Your task to perform on an android device: Open wifi settings Image 0: 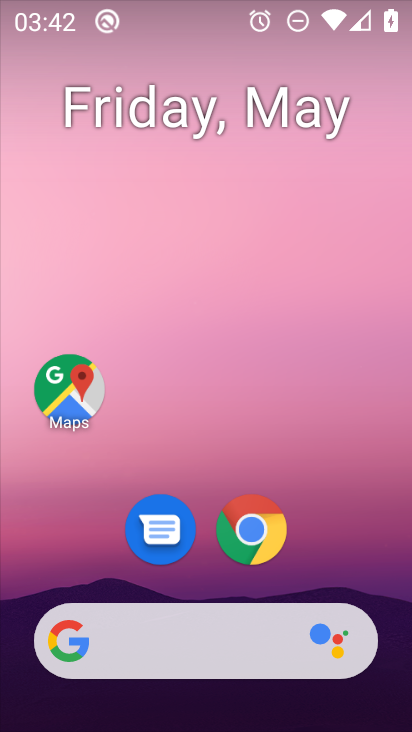
Step 0: click (376, 274)
Your task to perform on an android device: Open wifi settings Image 1: 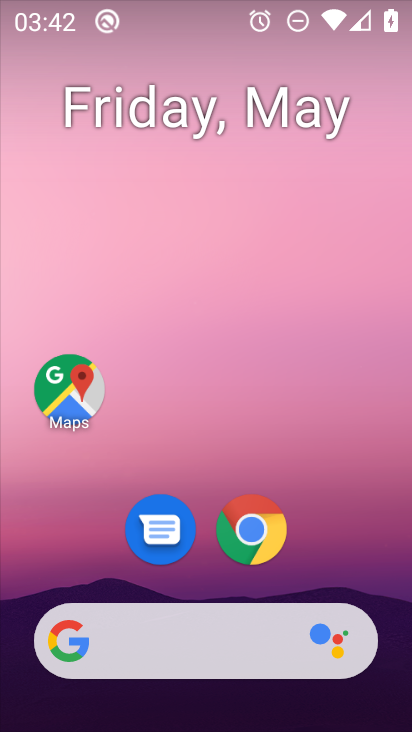
Step 1: drag from (389, 613) to (344, 276)
Your task to perform on an android device: Open wifi settings Image 2: 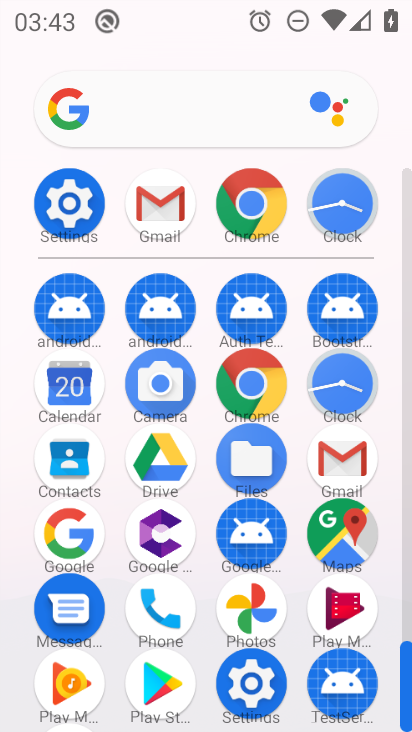
Step 2: click (77, 199)
Your task to perform on an android device: Open wifi settings Image 3: 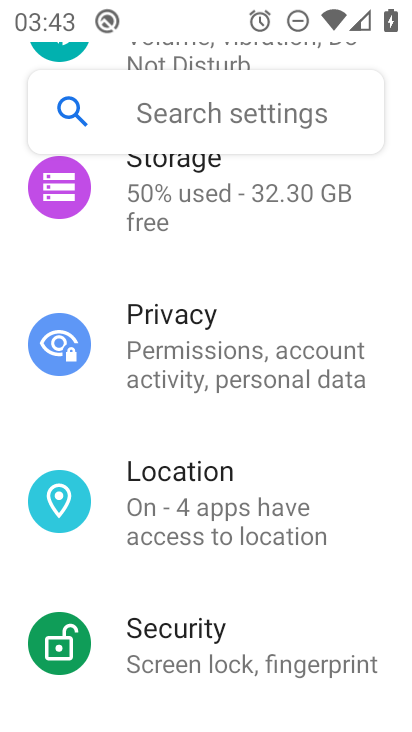
Step 3: drag from (381, 179) to (333, 701)
Your task to perform on an android device: Open wifi settings Image 4: 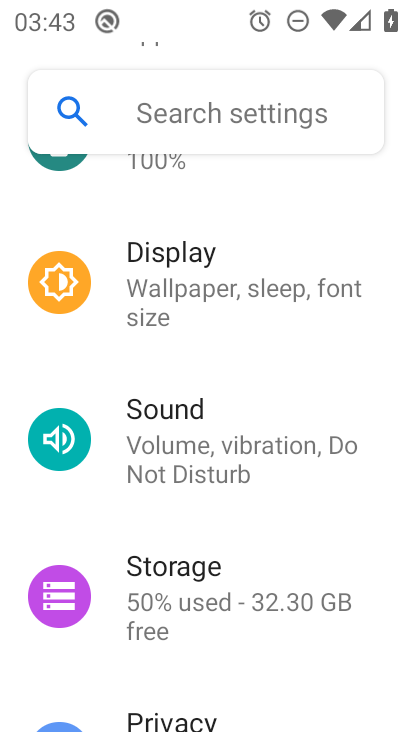
Step 4: drag from (386, 160) to (390, 589)
Your task to perform on an android device: Open wifi settings Image 5: 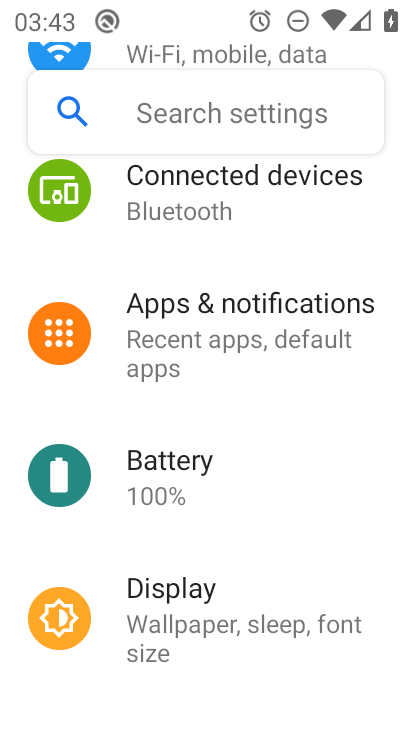
Step 5: drag from (374, 188) to (364, 563)
Your task to perform on an android device: Open wifi settings Image 6: 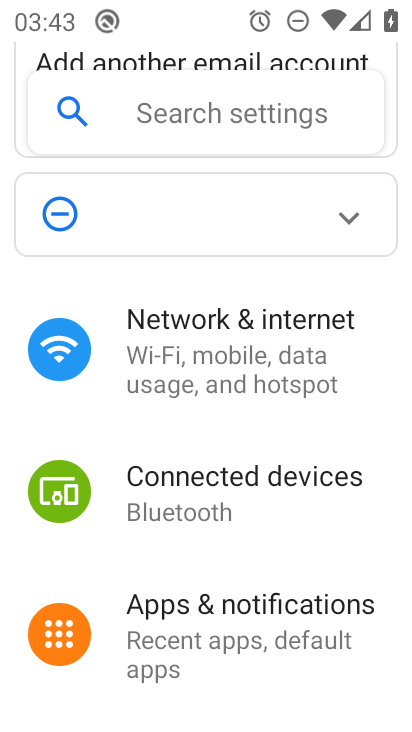
Step 6: click (229, 320)
Your task to perform on an android device: Open wifi settings Image 7: 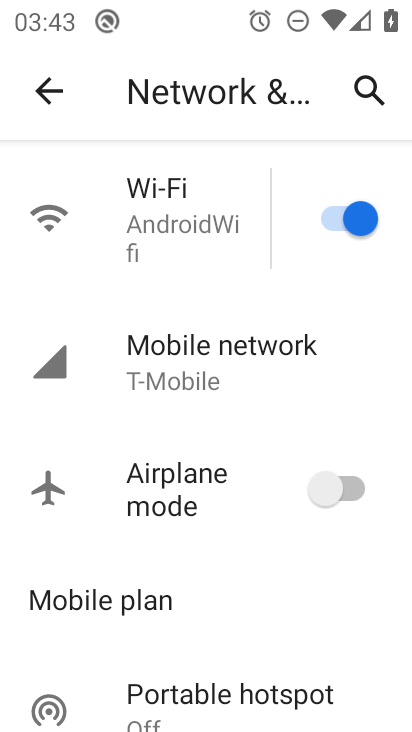
Step 7: task complete